Your task to perform on an android device: remove spam from my inbox in the gmail app Image 0: 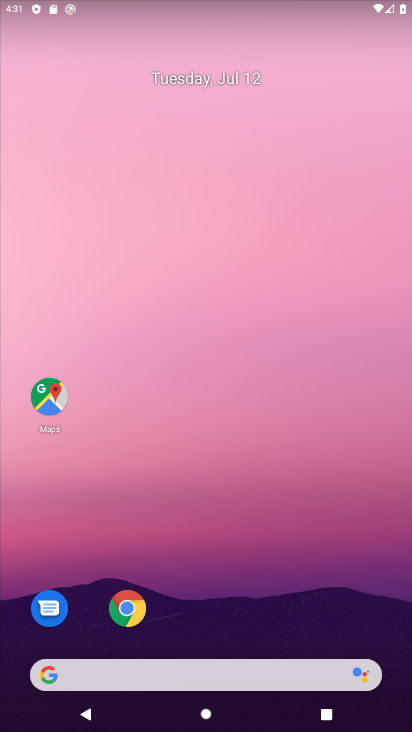
Step 0: drag from (195, 648) to (141, 157)
Your task to perform on an android device: remove spam from my inbox in the gmail app Image 1: 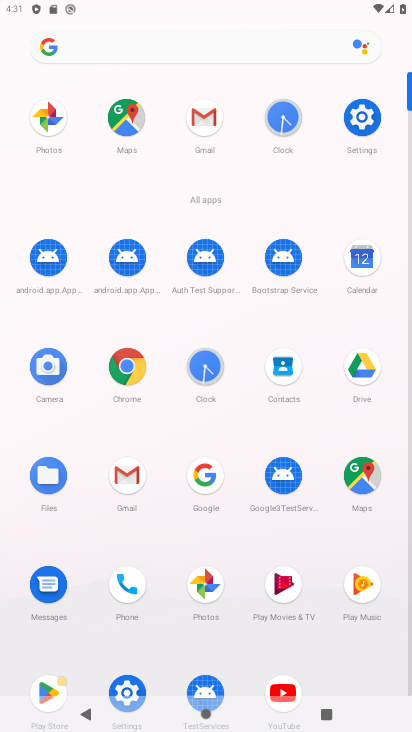
Step 1: click (126, 490)
Your task to perform on an android device: remove spam from my inbox in the gmail app Image 2: 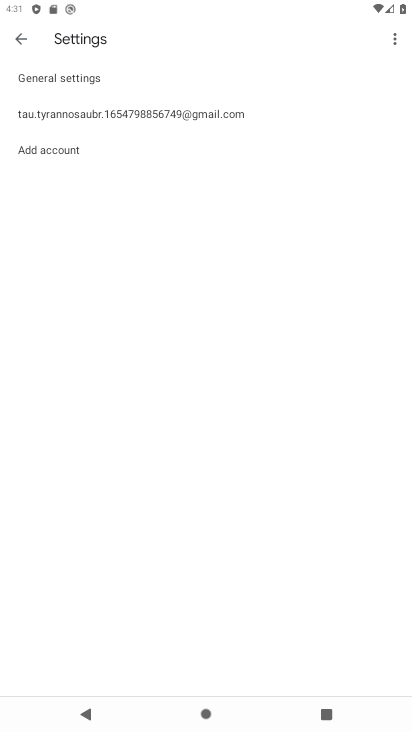
Step 2: click (21, 43)
Your task to perform on an android device: remove spam from my inbox in the gmail app Image 3: 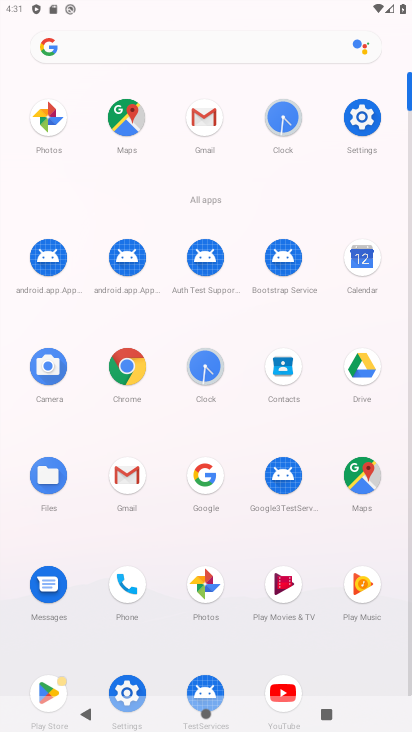
Step 3: click (186, 123)
Your task to perform on an android device: remove spam from my inbox in the gmail app Image 4: 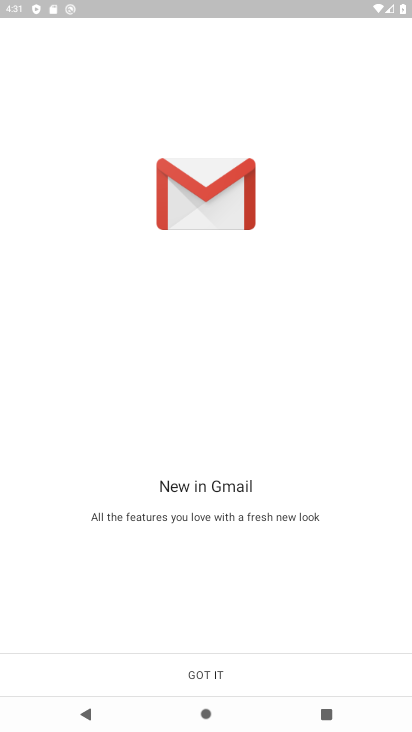
Step 4: click (189, 673)
Your task to perform on an android device: remove spam from my inbox in the gmail app Image 5: 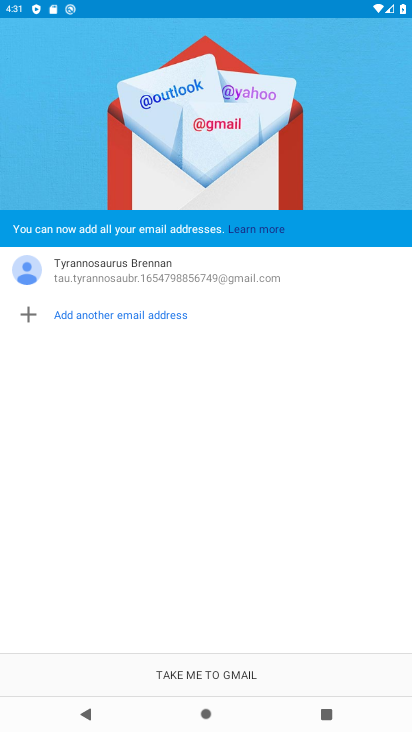
Step 5: click (190, 669)
Your task to perform on an android device: remove spam from my inbox in the gmail app Image 6: 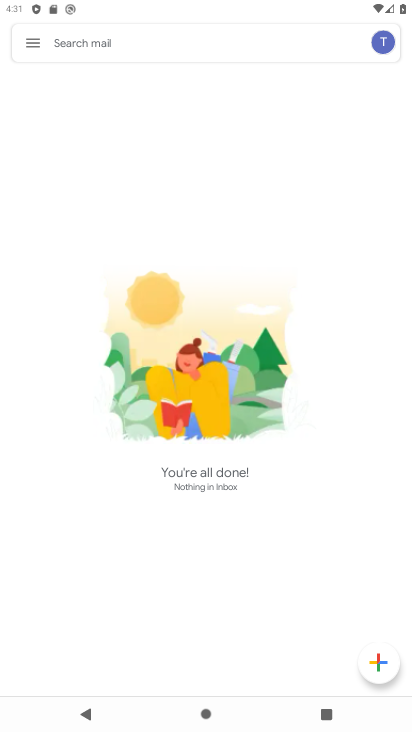
Step 6: click (26, 43)
Your task to perform on an android device: remove spam from my inbox in the gmail app Image 7: 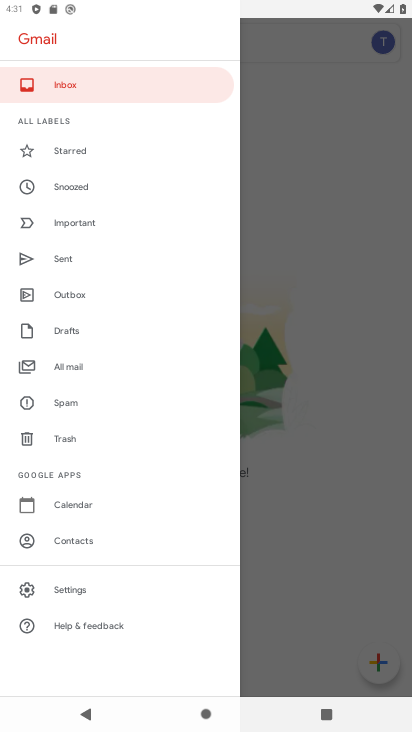
Step 7: click (79, 386)
Your task to perform on an android device: remove spam from my inbox in the gmail app Image 8: 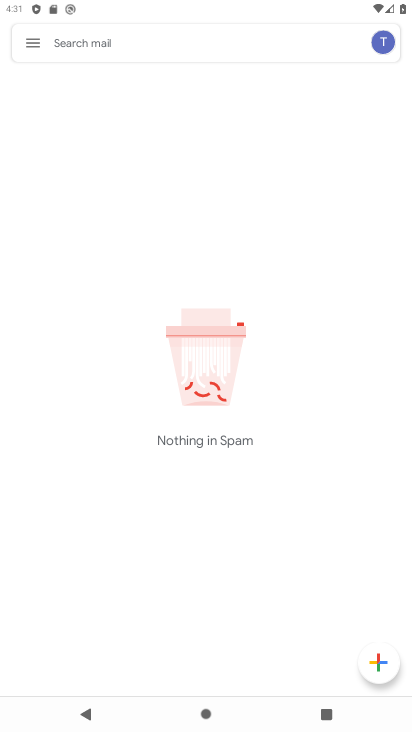
Step 8: task complete